Your task to perform on an android device: Go to notification settings Image 0: 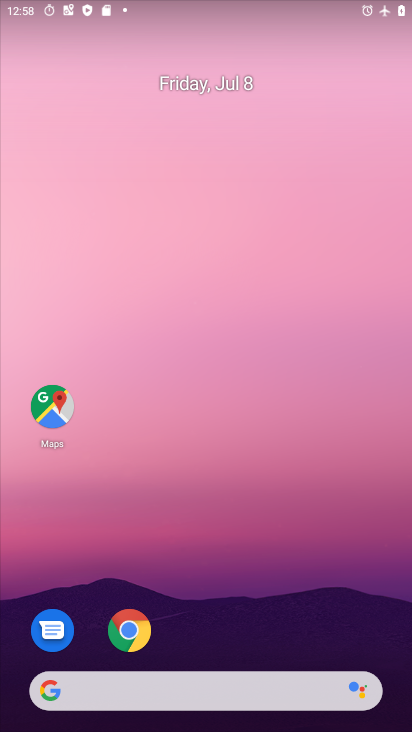
Step 0: drag from (171, 633) to (276, 116)
Your task to perform on an android device: Go to notification settings Image 1: 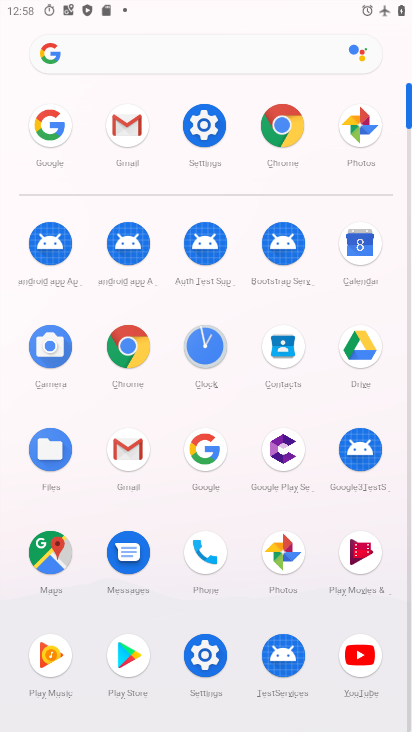
Step 1: click (215, 145)
Your task to perform on an android device: Go to notification settings Image 2: 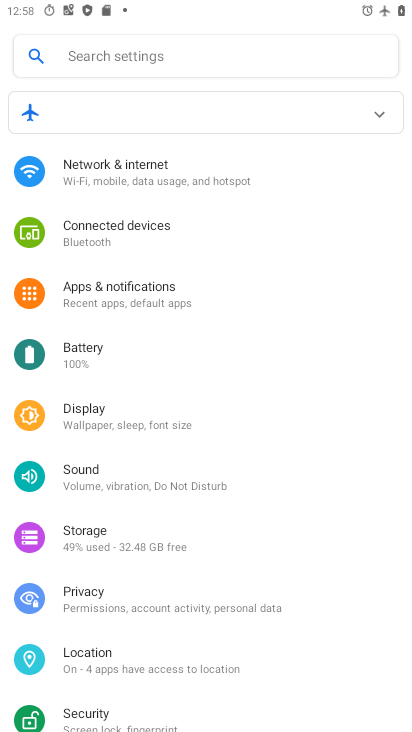
Step 2: click (191, 310)
Your task to perform on an android device: Go to notification settings Image 3: 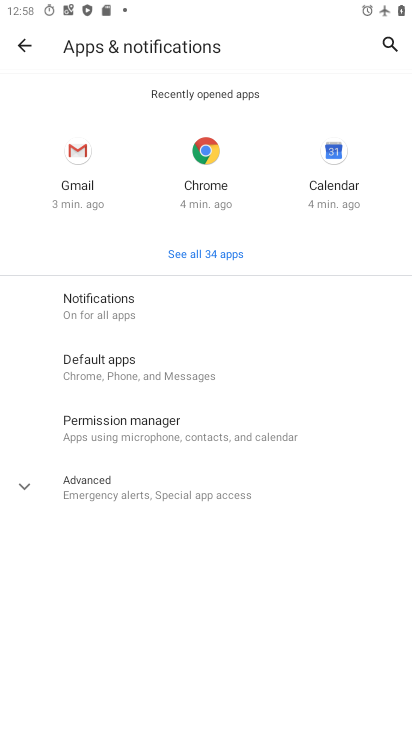
Step 3: click (125, 303)
Your task to perform on an android device: Go to notification settings Image 4: 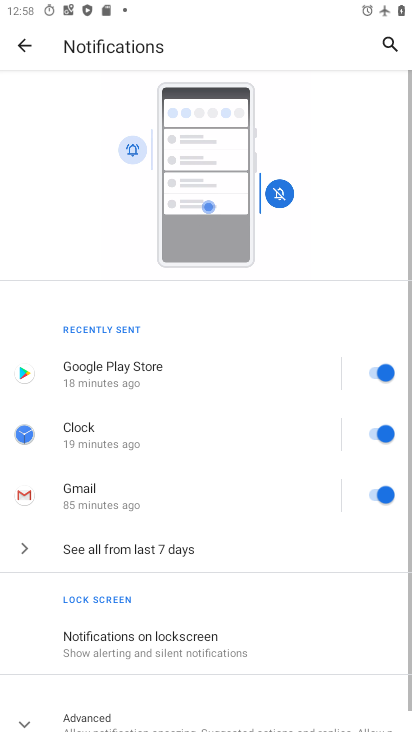
Step 4: task complete